Your task to perform on an android device: turn off improve location accuracy Image 0: 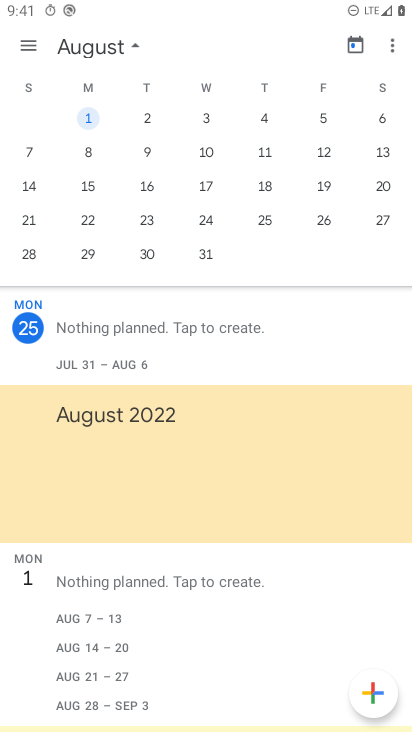
Step 0: press home button
Your task to perform on an android device: turn off improve location accuracy Image 1: 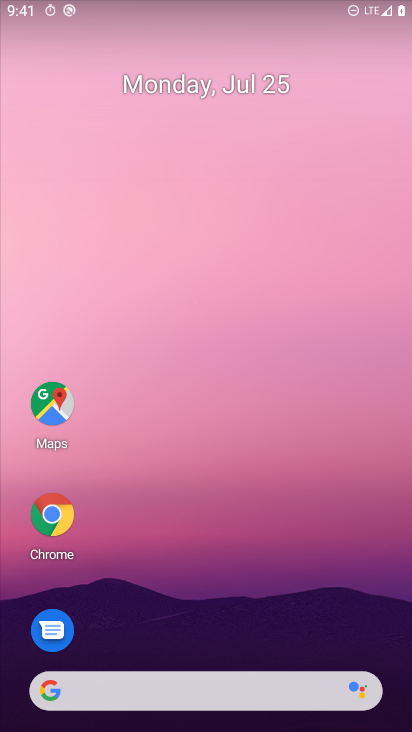
Step 1: drag from (19, 692) to (218, 20)
Your task to perform on an android device: turn off improve location accuracy Image 2: 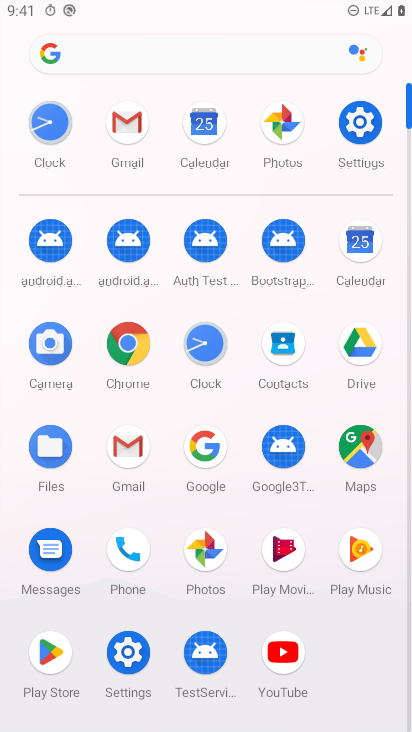
Step 2: click (134, 671)
Your task to perform on an android device: turn off improve location accuracy Image 3: 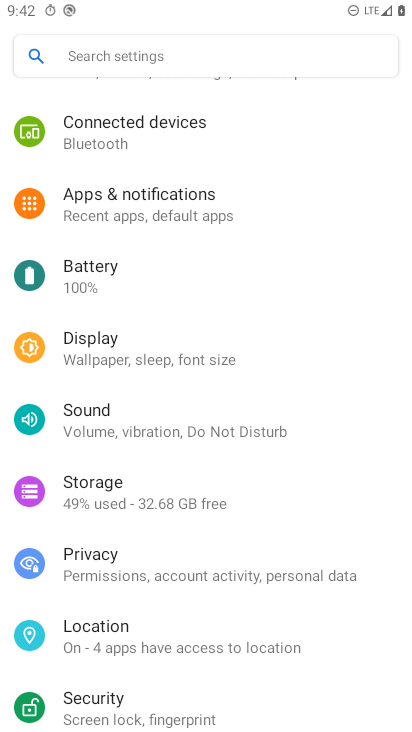
Step 3: click (133, 649)
Your task to perform on an android device: turn off improve location accuracy Image 4: 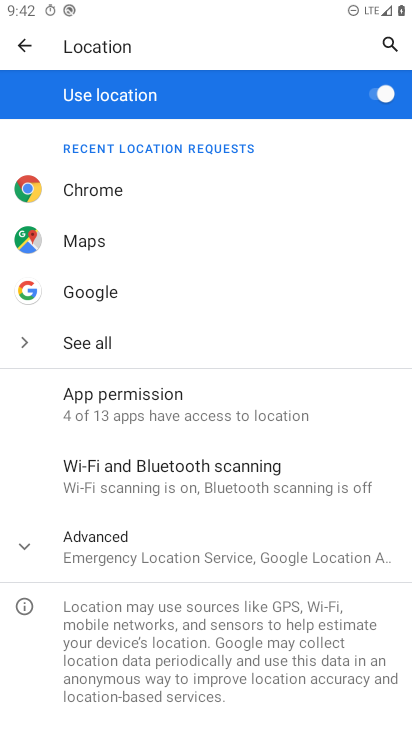
Step 4: click (155, 551)
Your task to perform on an android device: turn off improve location accuracy Image 5: 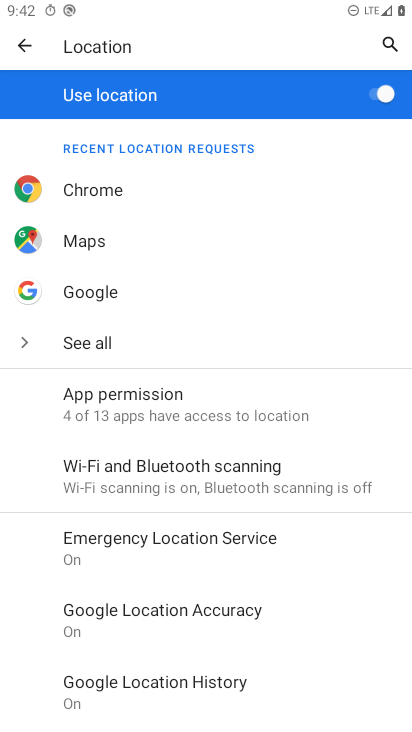
Step 5: click (154, 629)
Your task to perform on an android device: turn off improve location accuracy Image 6: 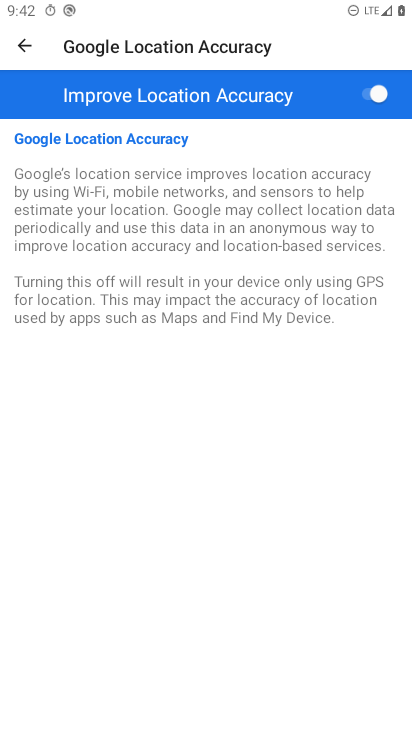
Step 6: click (371, 107)
Your task to perform on an android device: turn off improve location accuracy Image 7: 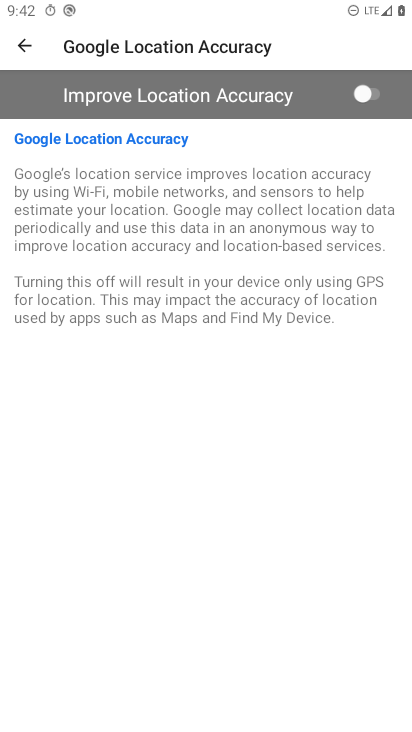
Step 7: task complete